Your task to perform on an android device: Open the calendar app, open the side menu, and click the "Day" option Image 0: 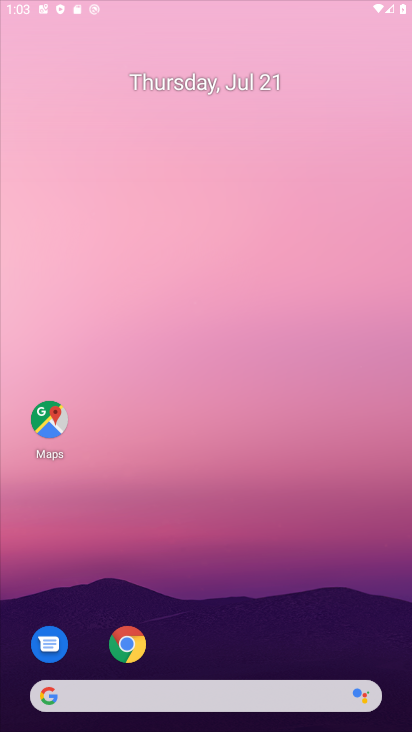
Step 0: press home button
Your task to perform on an android device: Open the calendar app, open the side menu, and click the "Day" option Image 1: 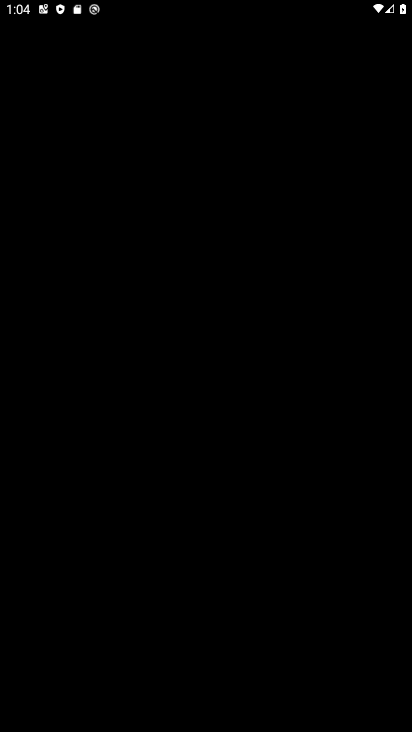
Step 1: drag from (205, 19) to (110, 0)
Your task to perform on an android device: Open the calendar app, open the side menu, and click the "Day" option Image 2: 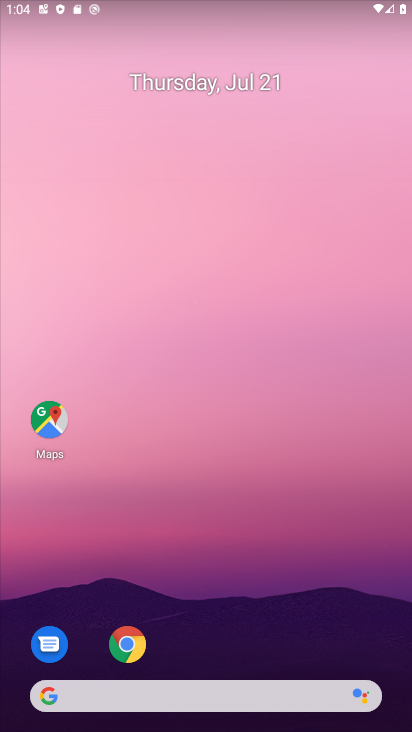
Step 2: drag from (210, 617) to (208, 149)
Your task to perform on an android device: Open the calendar app, open the side menu, and click the "Day" option Image 3: 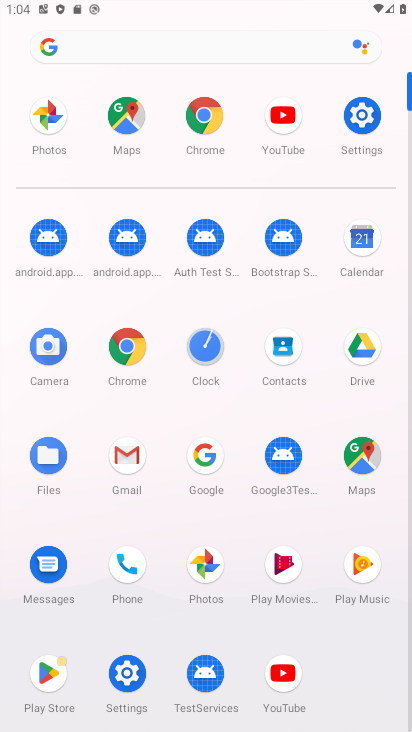
Step 3: click (373, 255)
Your task to perform on an android device: Open the calendar app, open the side menu, and click the "Day" option Image 4: 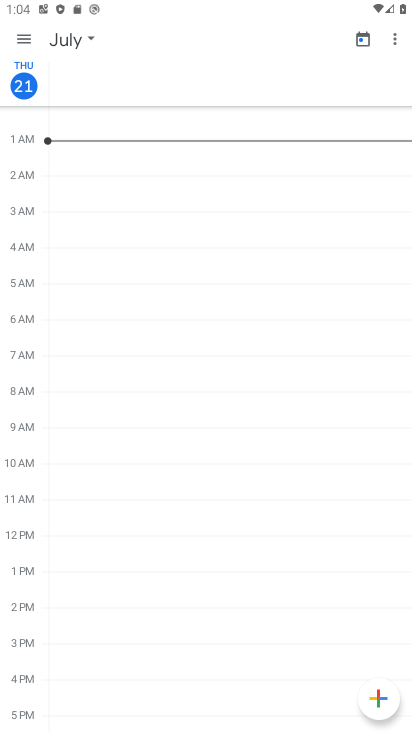
Step 4: task complete